Your task to perform on an android device: see creations saved in the google photos Image 0: 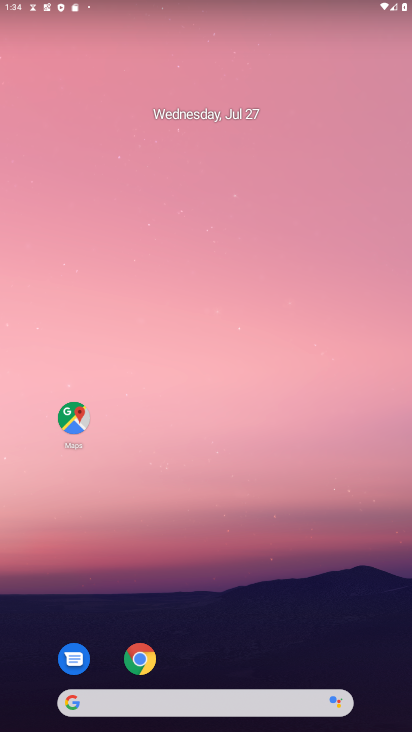
Step 0: press home button
Your task to perform on an android device: see creations saved in the google photos Image 1: 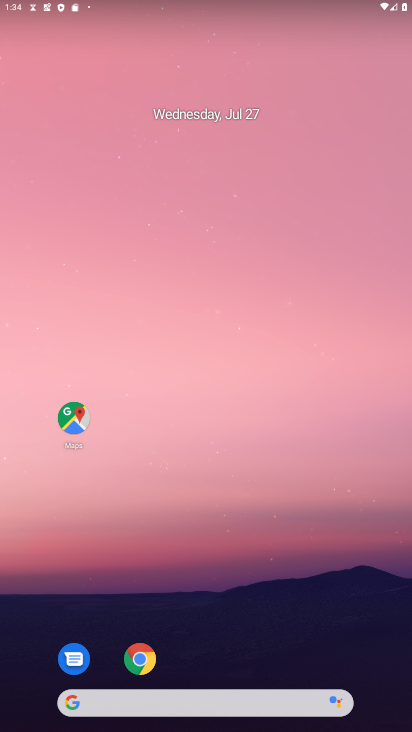
Step 1: drag from (205, 673) to (218, 0)
Your task to perform on an android device: see creations saved in the google photos Image 2: 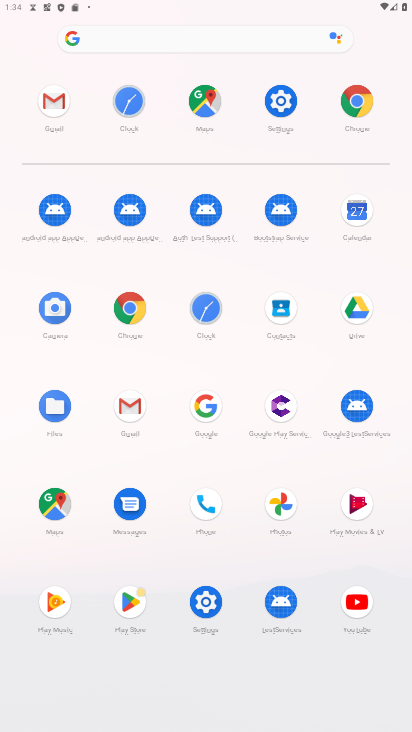
Step 2: click (282, 502)
Your task to perform on an android device: see creations saved in the google photos Image 3: 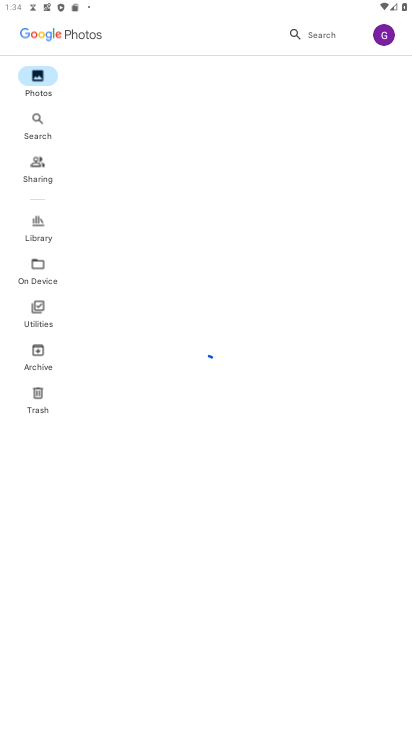
Step 3: click (41, 122)
Your task to perform on an android device: see creations saved in the google photos Image 4: 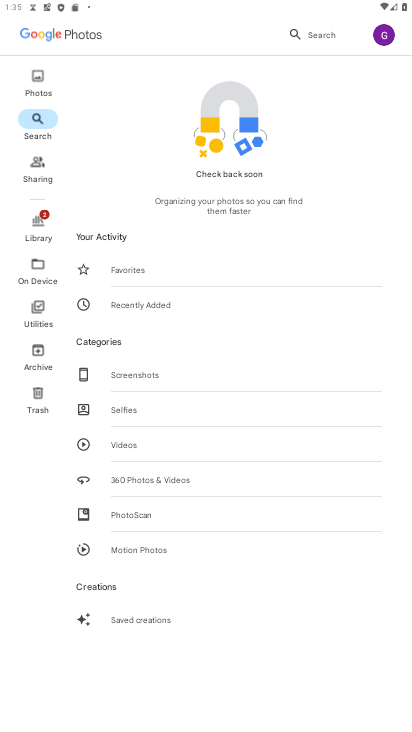
Step 4: click (143, 614)
Your task to perform on an android device: see creations saved in the google photos Image 5: 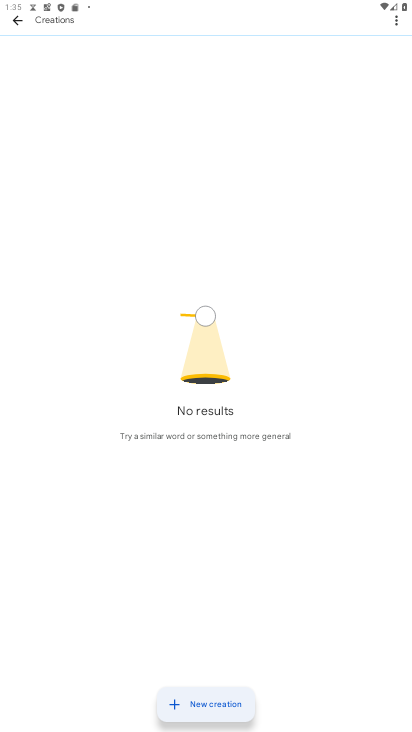
Step 5: task complete